Your task to perform on an android device: check google app version Image 0: 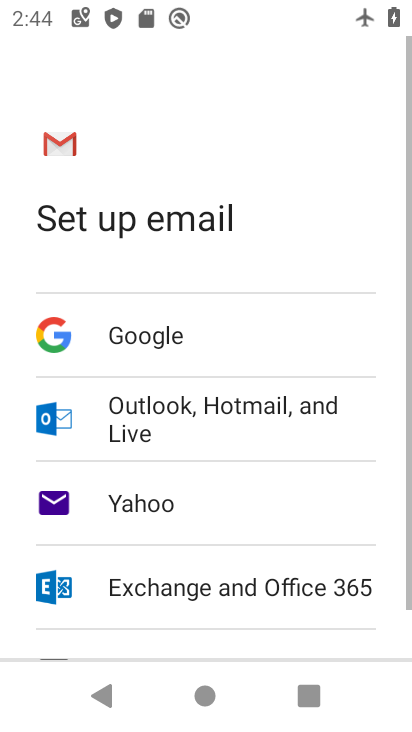
Step 0: press home button
Your task to perform on an android device: check google app version Image 1: 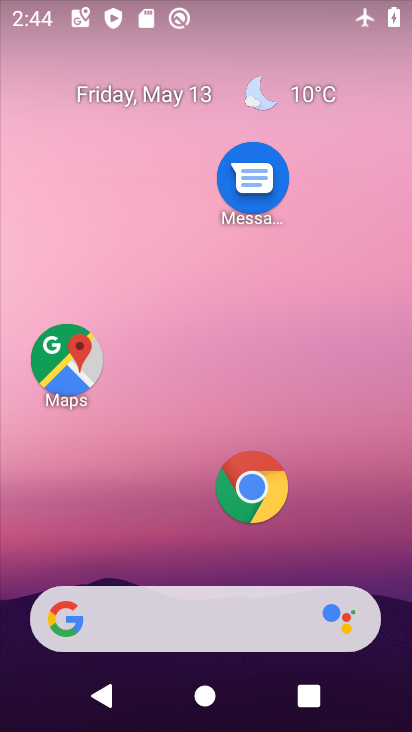
Step 1: drag from (184, 571) to (201, 218)
Your task to perform on an android device: check google app version Image 2: 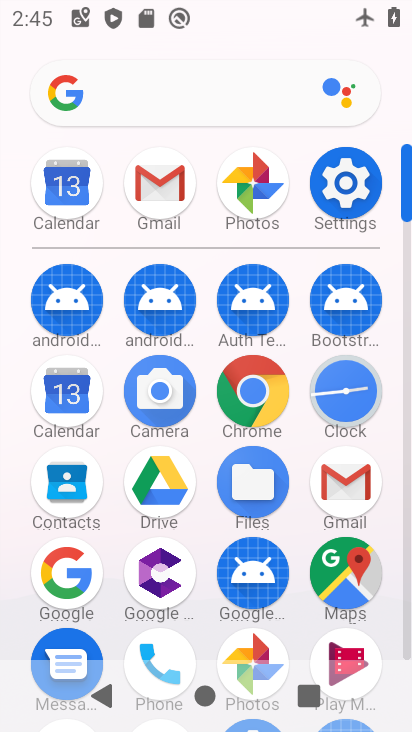
Step 2: click (60, 565)
Your task to perform on an android device: check google app version Image 3: 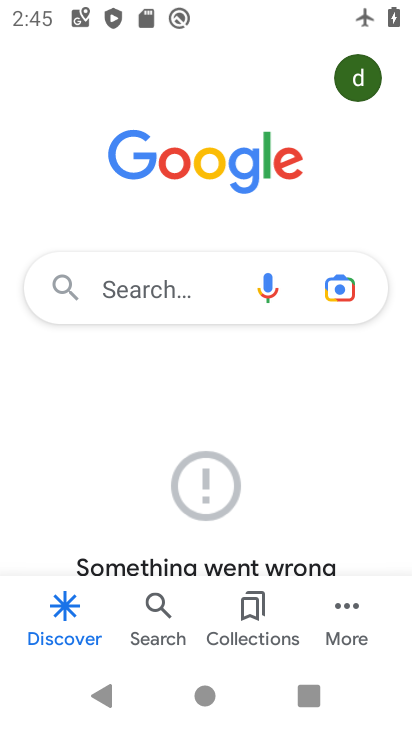
Step 3: click (349, 616)
Your task to perform on an android device: check google app version Image 4: 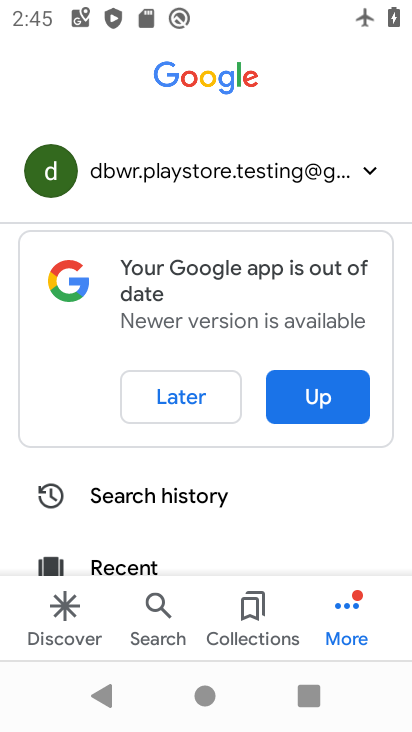
Step 4: drag from (208, 537) to (283, 137)
Your task to perform on an android device: check google app version Image 5: 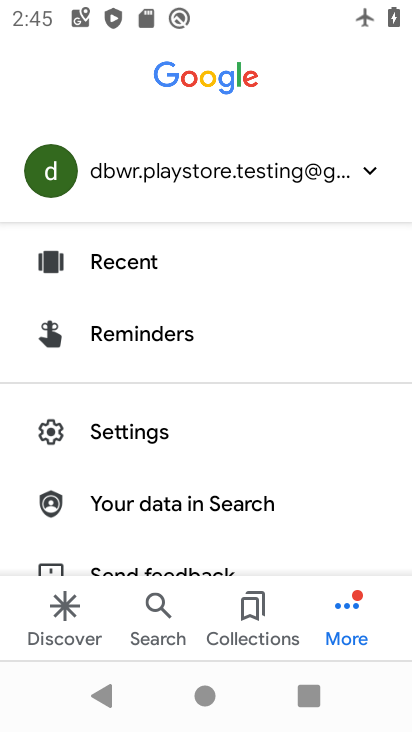
Step 5: drag from (185, 521) to (231, 190)
Your task to perform on an android device: check google app version Image 6: 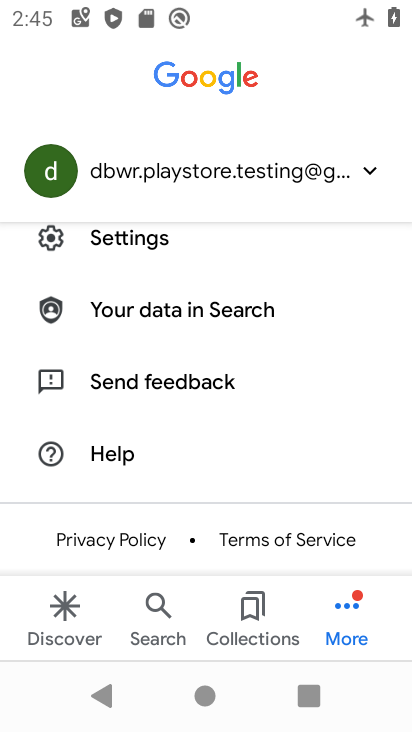
Step 6: click (164, 233)
Your task to perform on an android device: check google app version Image 7: 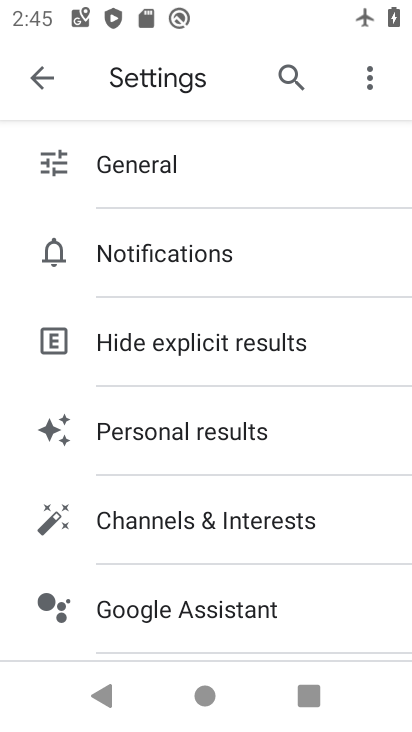
Step 7: drag from (208, 542) to (286, 128)
Your task to perform on an android device: check google app version Image 8: 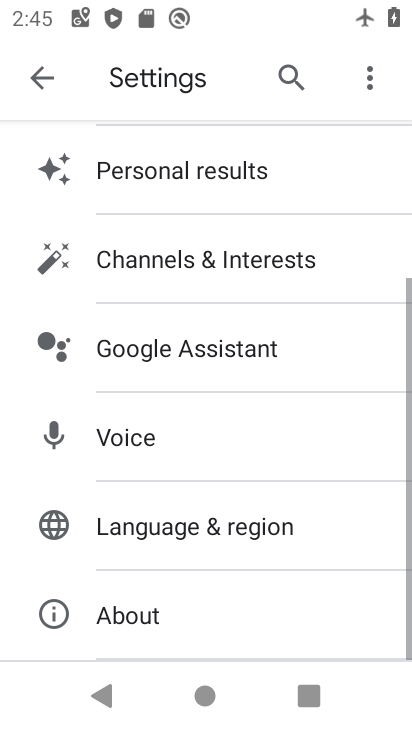
Step 8: drag from (220, 595) to (288, 149)
Your task to perform on an android device: check google app version Image 9: 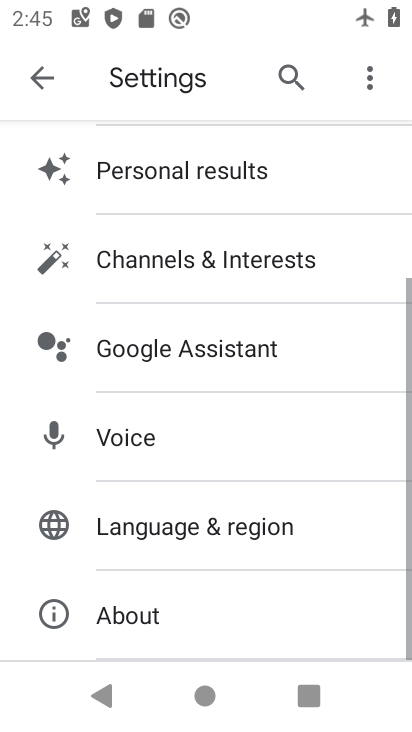
Step 9: click (141, 619)
Your task to perform on an android device: check google app version Image 10: 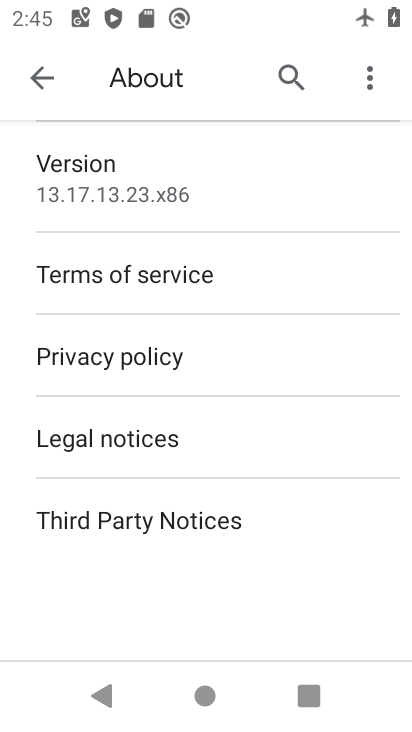
Step 10: task complete